Your task to perform on an android device: add a contact in the contacts app Image 0: 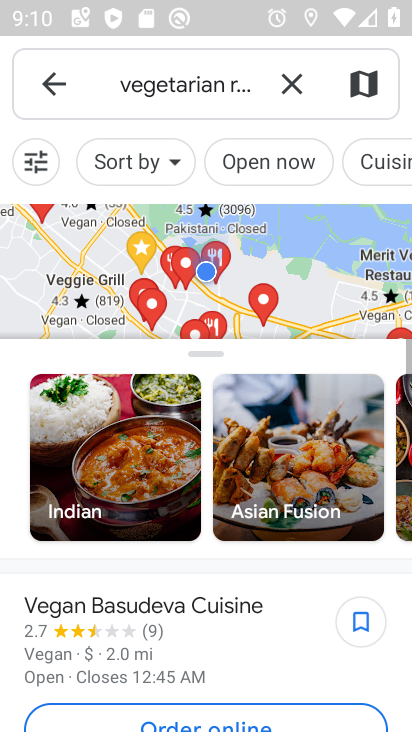
Step 0: press back button
Your task to perform on an android device: add a contact in the contacts app Image 1: 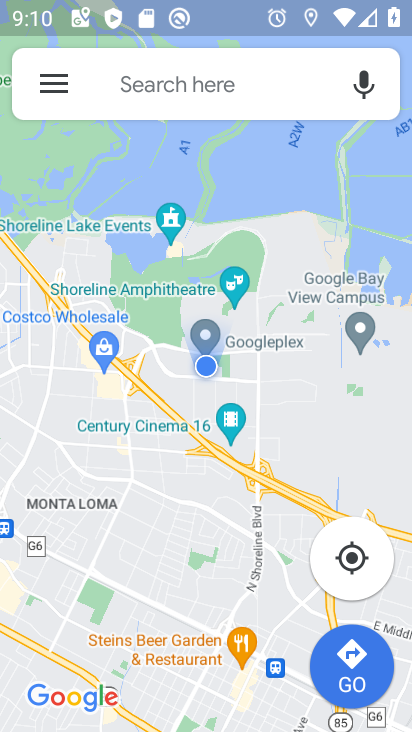
Step 1: press home button
Your task to perform on an android device: add a contact in the contacts app Image 2: 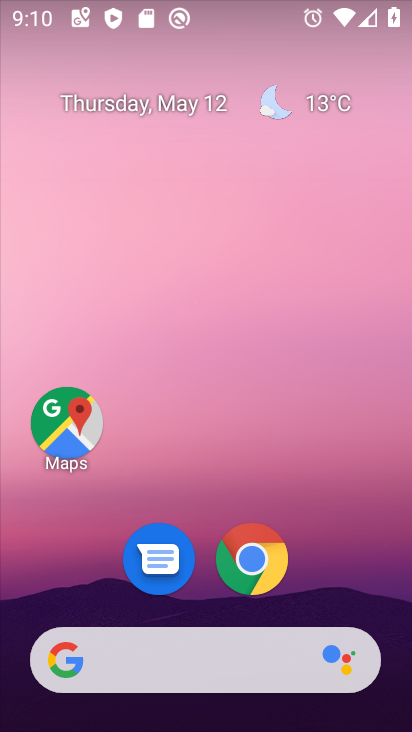
Step 2: drag from (216, 604) to (315, 39)
Your task to perform on an android device: add a contact in the contacts app Image 3: 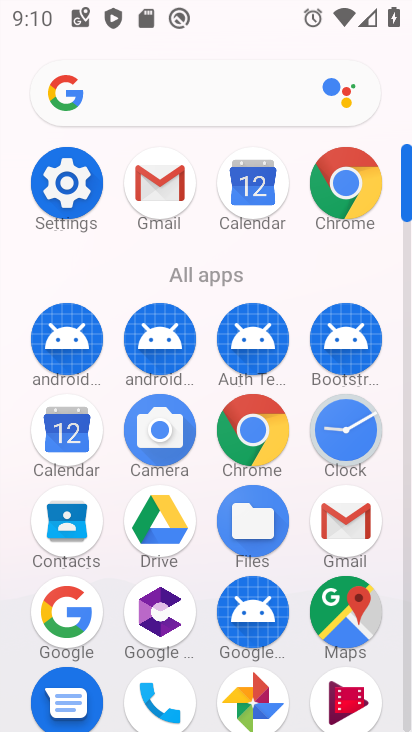
Step 3: click (77, 540)
Your task to perform on an android device: add a contact in the contacts app Image 4: 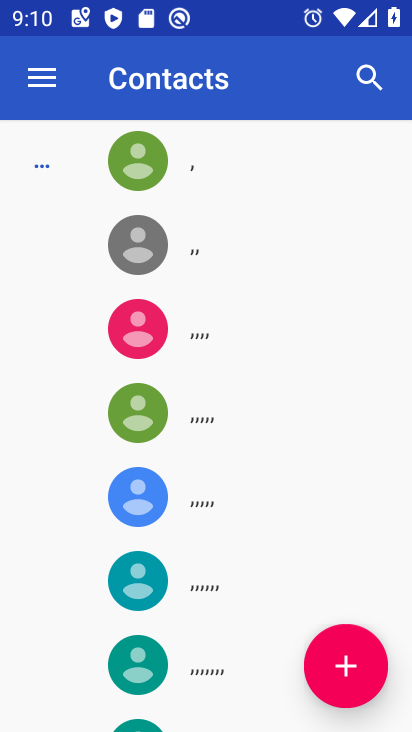
Step 4: click (344, 676)
Your task to perform on an android device: add a contact in the contacts app Image 5: 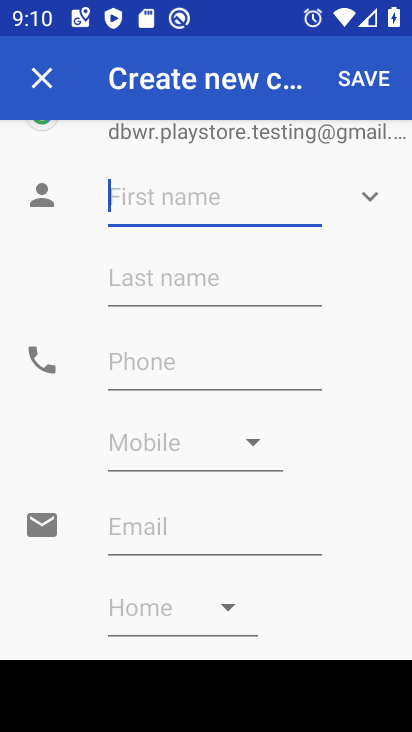
Step 5: type "JKL"
Your task to perform on an android device: add a contact in the contacts app Image 6: 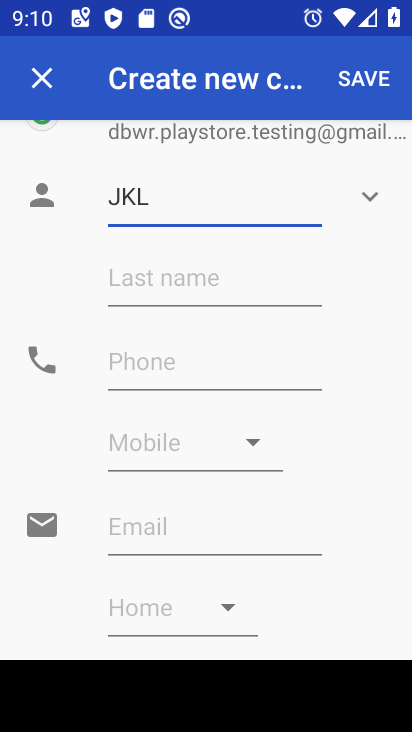
Step 6: click (173, 346)
Your task to perform on an android device: add a contact in the contacts app Image 7: 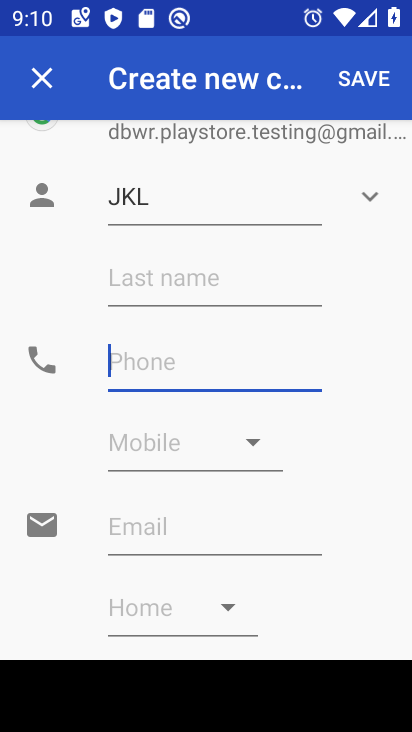
Step 7: type "898978786"
Your task to perform on an android device: add a contact in the contacts app Image 8: 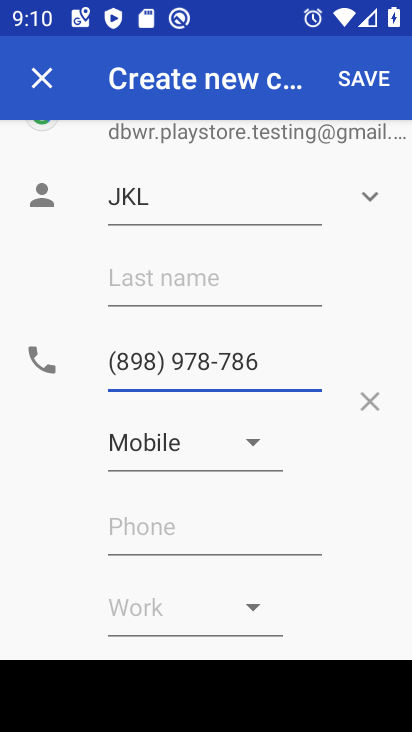
Step 8: click (348, 59)
Your task to perform on an android device: add a contact in the contacts app Image 9: 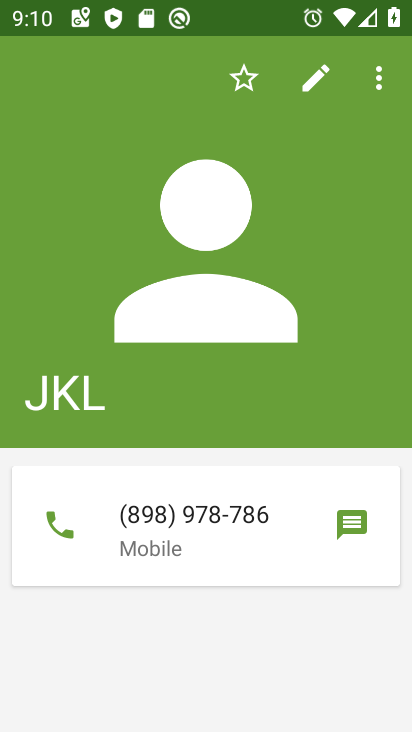
Step 9: task complete